Your task to perform on an android device: Search for Mexican restaurants on Maps Image 0: 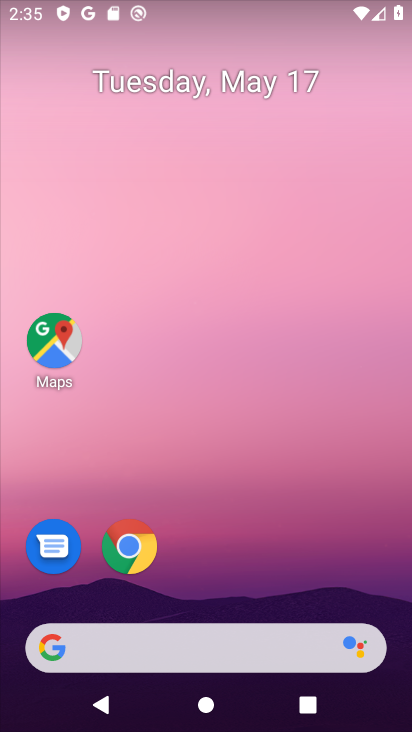
Step 0: click (55, 335)
Your task to perform on an android device: Search for Mexican restaurants on Maps Image 1: 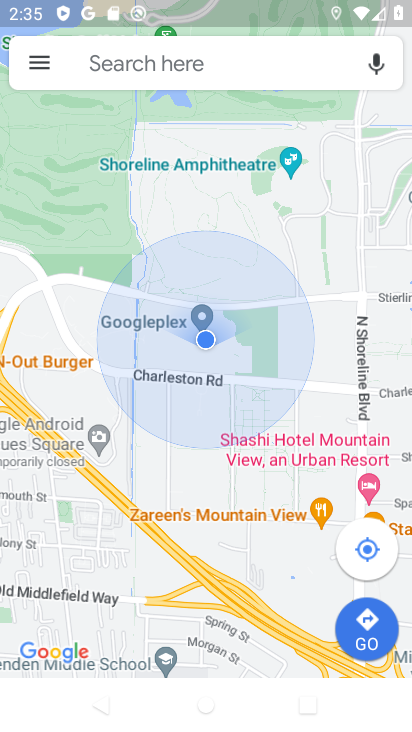
Step 1: click (95, 55)
Your task to perform on an android device: Search for Mexican restaurants on Maps Image 2: 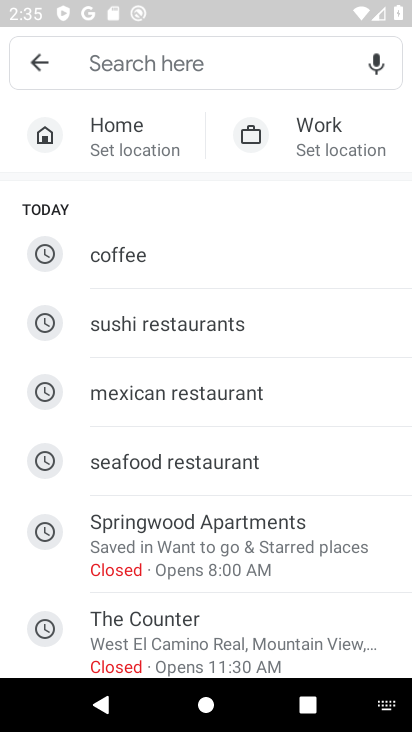
Step 2: type "Mexican restaurants"
Your task to perform on an android device: Search for Mexican restaurants on Maps Image 3: 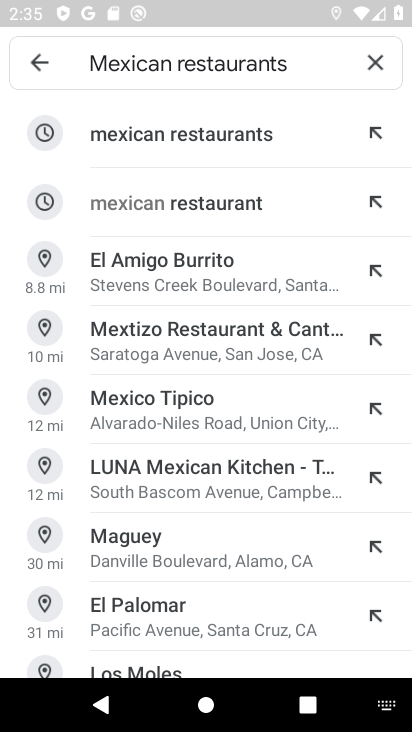
Step 3: click (205, 135)
Your task to perform on an android device: Search for Mexican restaurants on Maps Image 4: 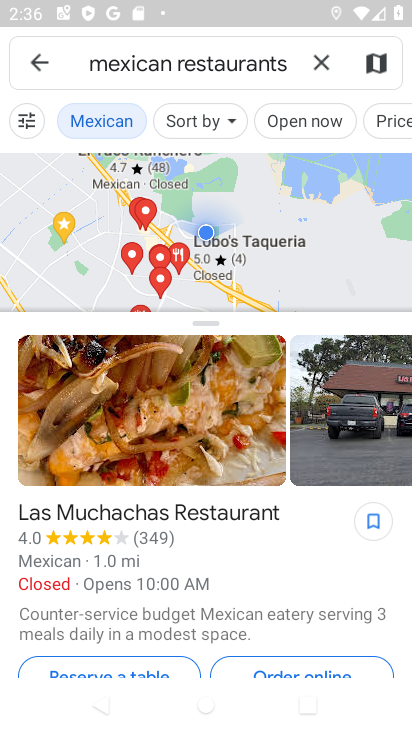
Step 4: task complete